Your task to perform on an android device: Open Google Maps Image 0: 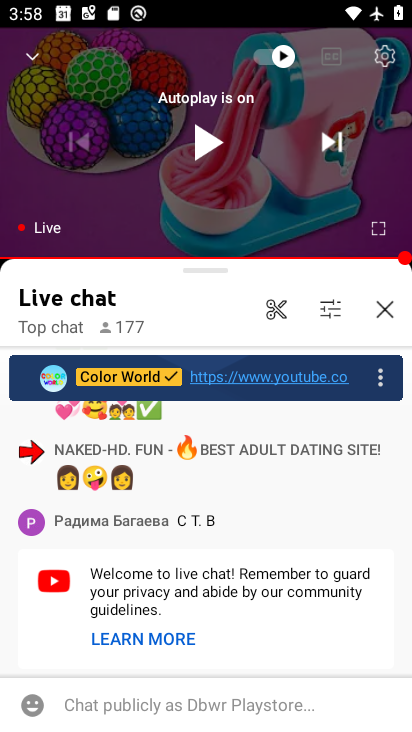
Step 0: press home button
Your task to perform on an android device: Open Google Maps Image 1: 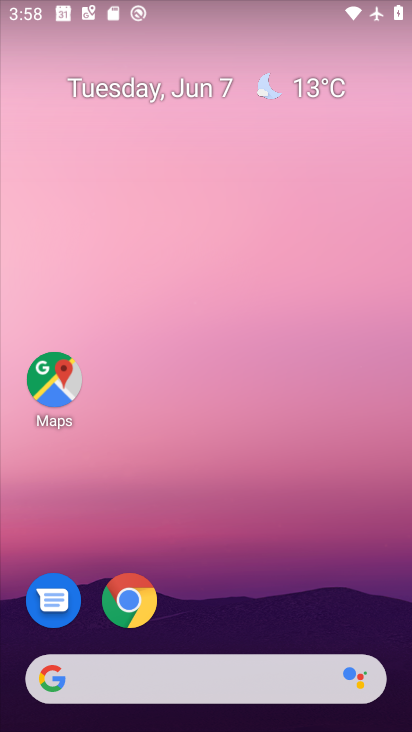
Step 1: click (61, 387)
Your task to perform on an android device: Open Google Maps Image 2: 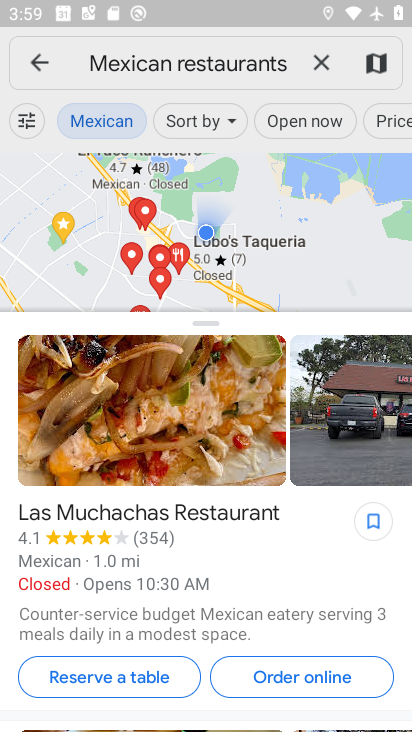
Step 2: task complete